Your task to perform on an android device: Open sound settings Image 0: 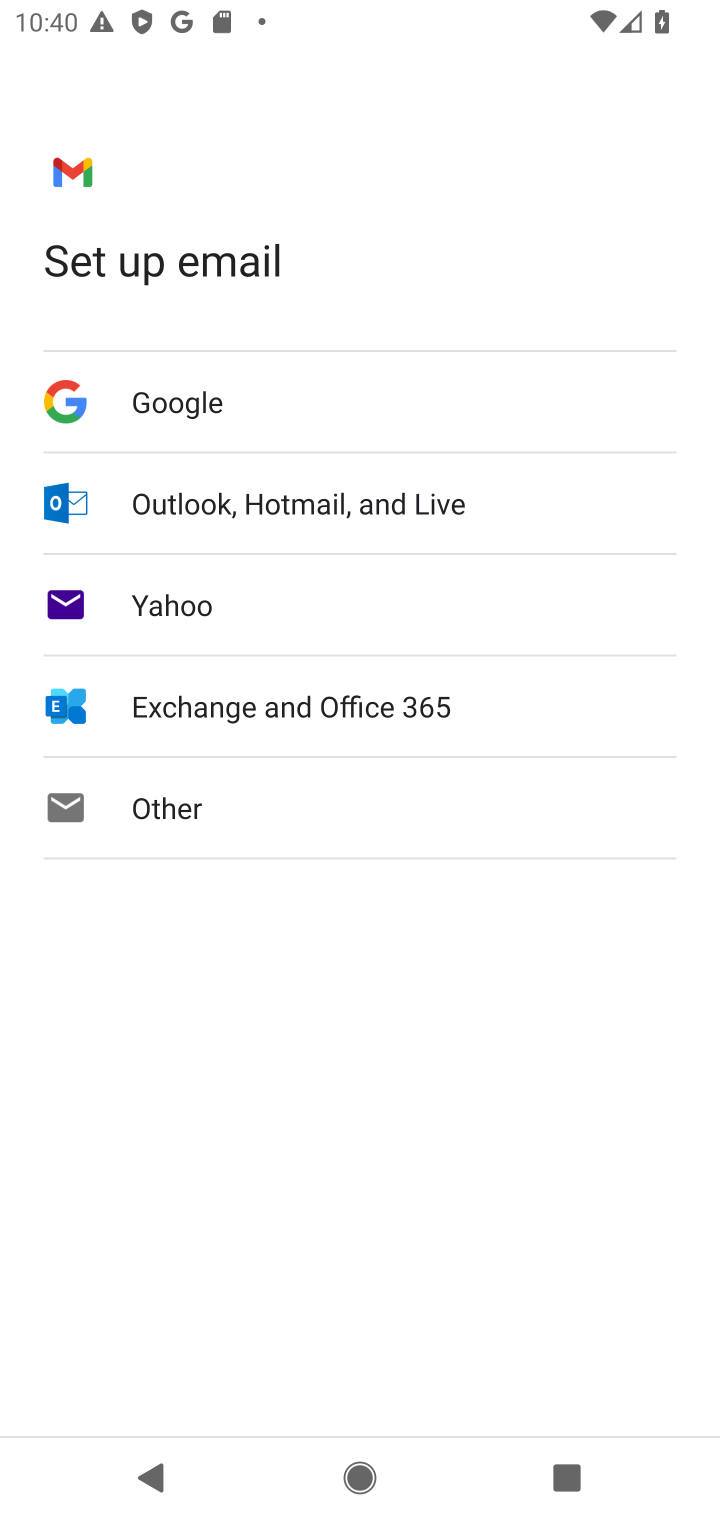
Step 0: press home button
Your task to perform on an android device: Open sound settings Image 1: 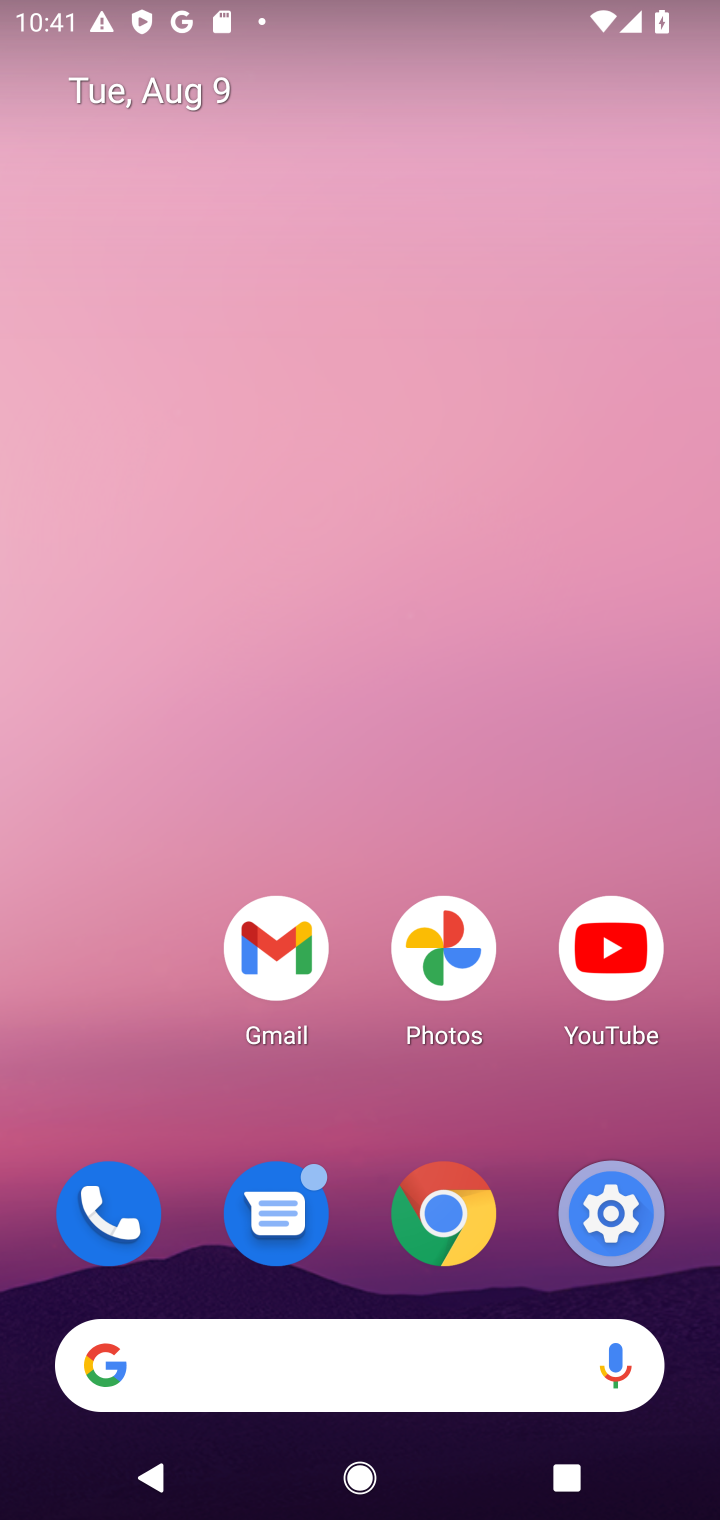
Step 1: drag from (458, 1286) to (359, 222)
Your task to perform on an android device: Open sound settings Image 2: 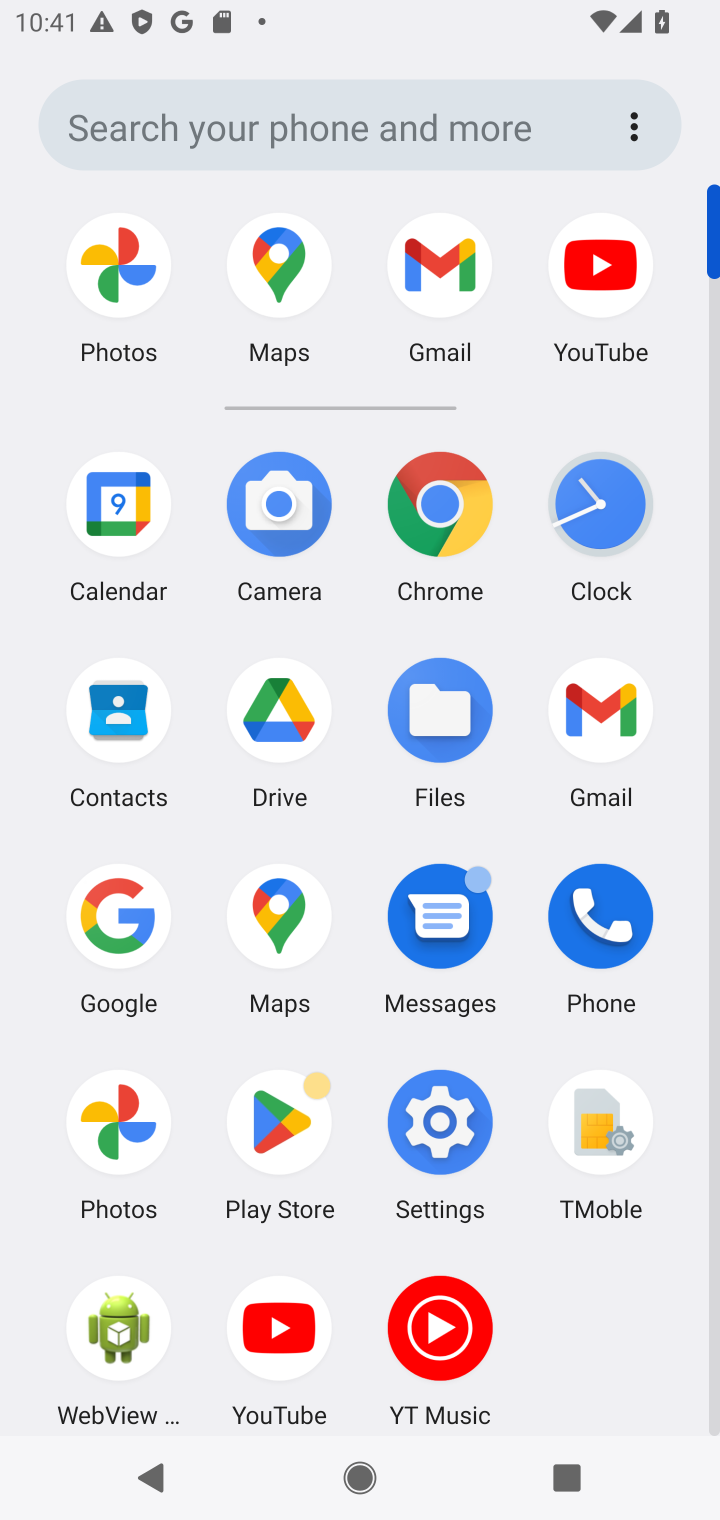
Step 2: click (417, 1126)
Your task to perform on an android device: Open sound settings Image 3: 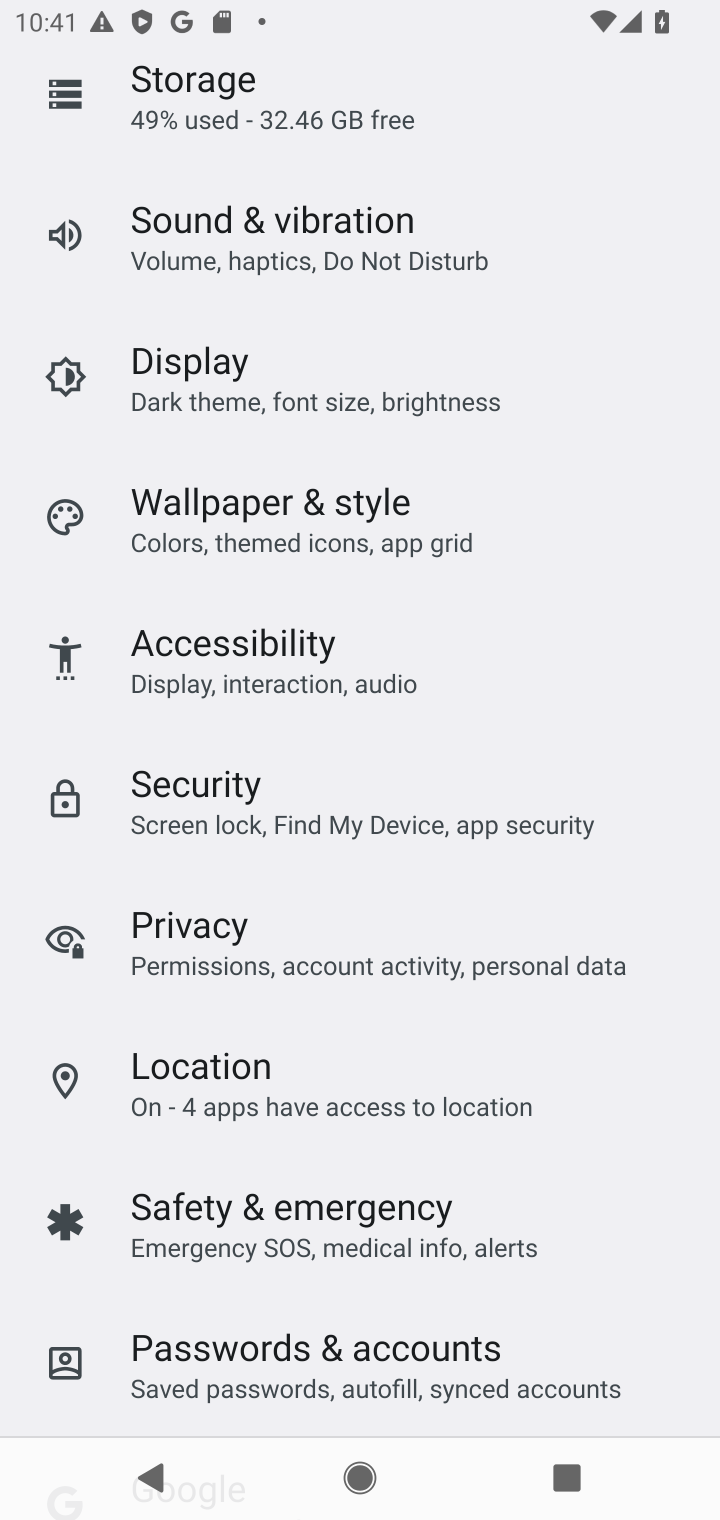
Step 3: click (251, 270)
Your task to perform on an android device: Open sound settings Image 4: 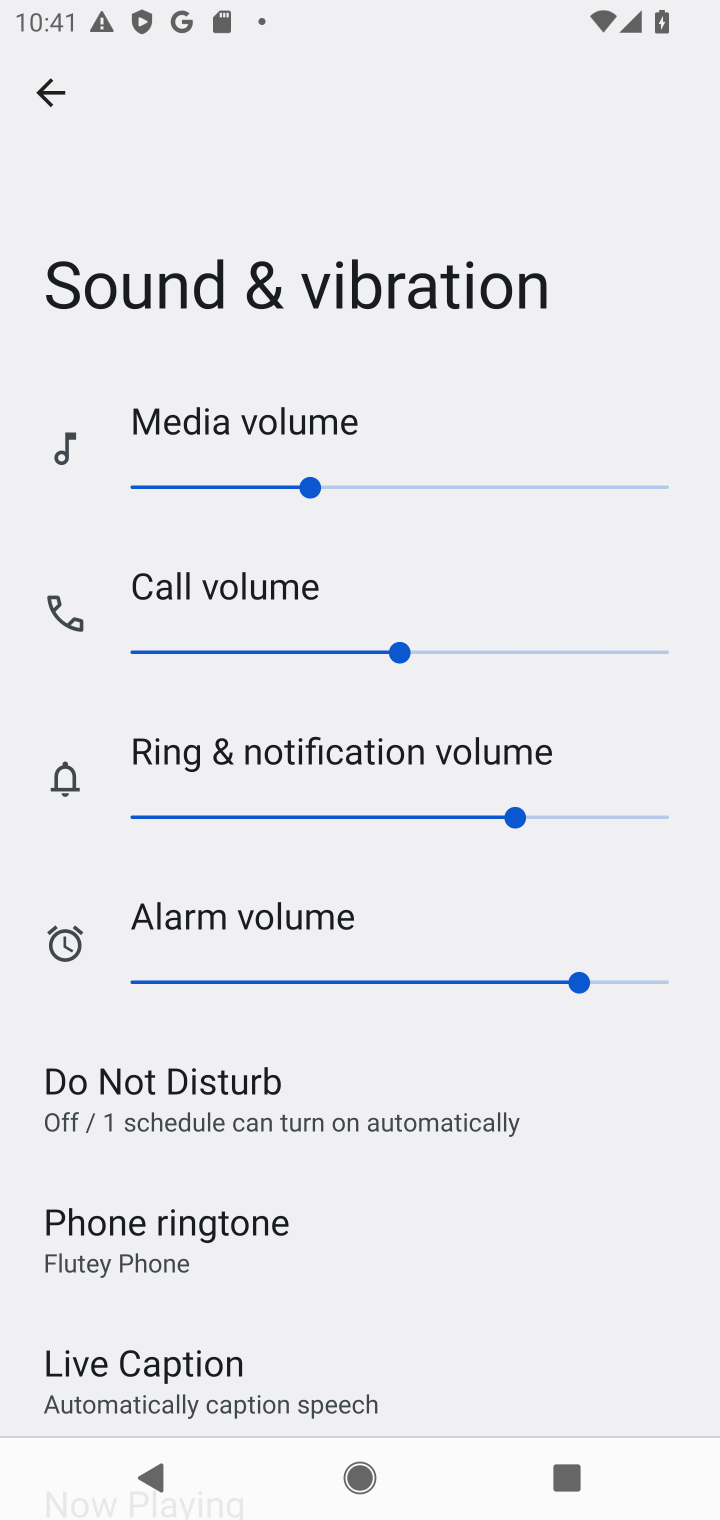
Step 4: task complete